Your task to perform on an android device: turn vacation reply on in the gmail app Image 0: 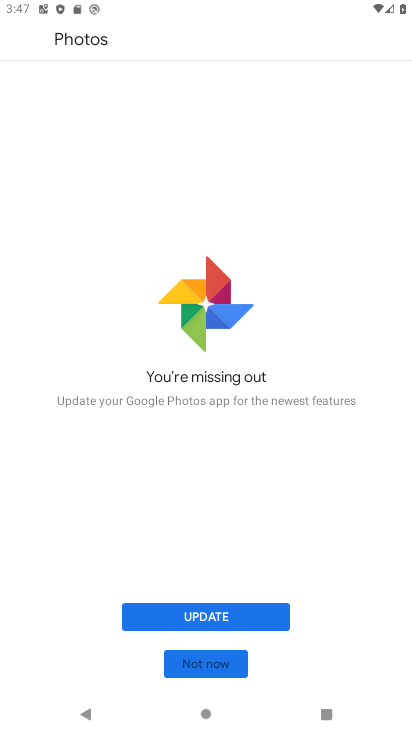
Step 0: press home button
Your task to perform on an android device: turn vacation reply on in the gmail app Image 1: 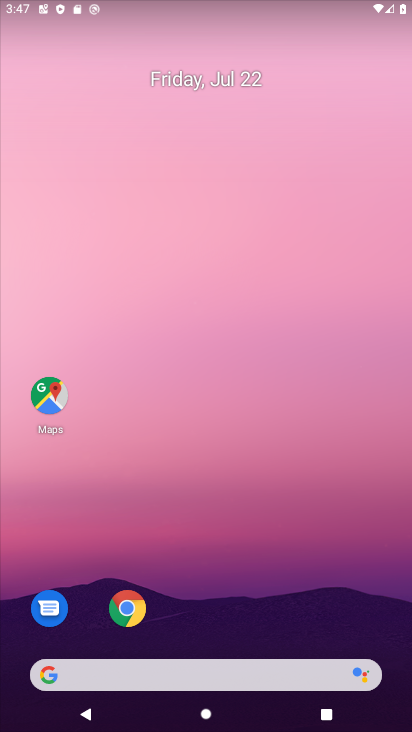
Step 1: drag from (236, 706) to (223, 165)
Your task to perform on an android device: turn vacation reply on in the gmail app Image 2: 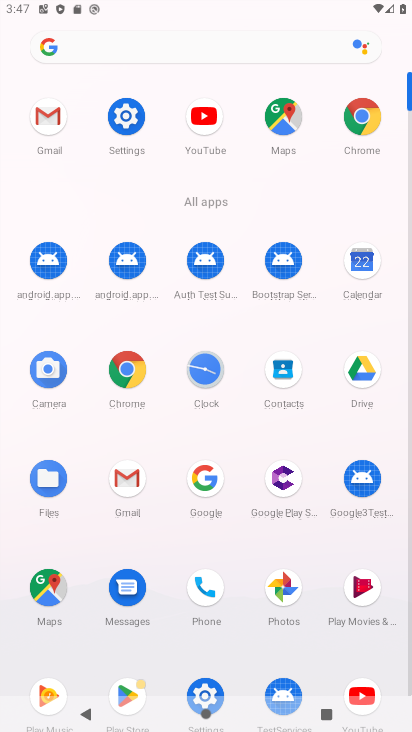
Step 2: click (128, 481)
Your task to perform on an android device: turn vacation reply on in the gmail app Image 3: 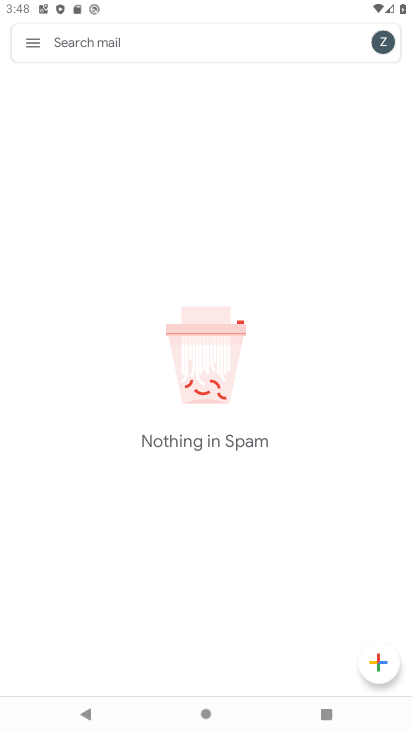
Step 3: click (30, 39)
Your task to perform on an android device: turn vacation reply on in the gmail app Image 4: 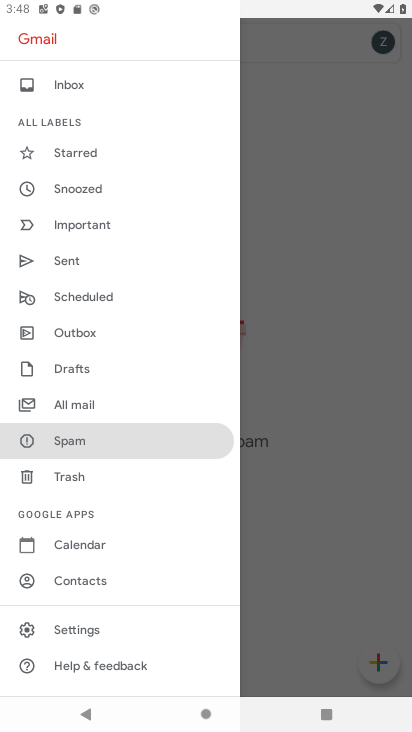
Step 4: click (82, 629)
Your task to perform on an android device: turn vacation reply on in the gmail app Image 5: 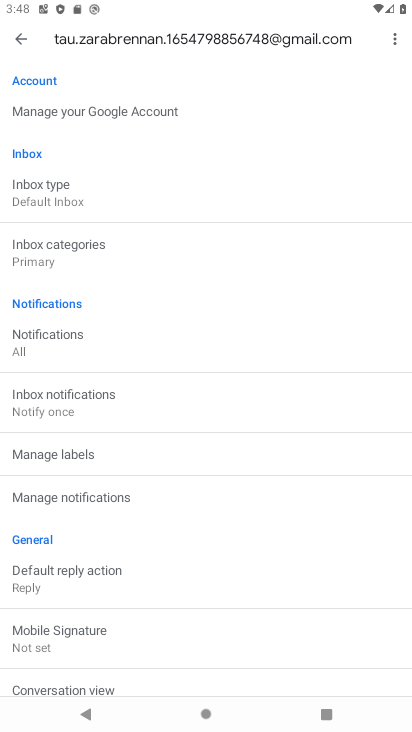
Step 5: drag from (104, 648) to (114, 429)
Your task to perform on an android device: turn vacation reply on in the gmail app Image 6: 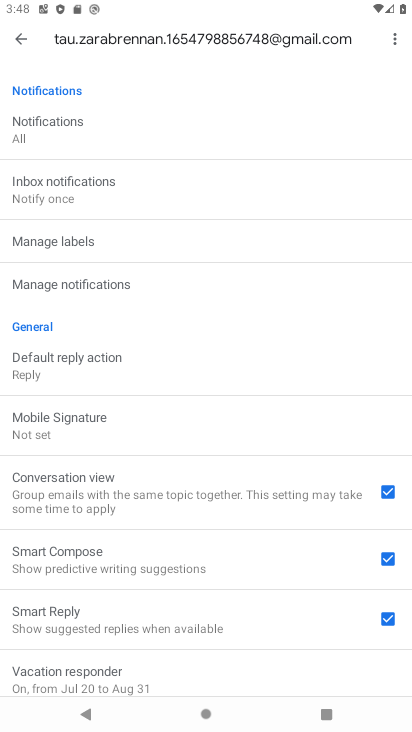
Step 6: click (192, 675)
Your task to perform on an android device: turn vacation reply on in the gmail app Image 7: 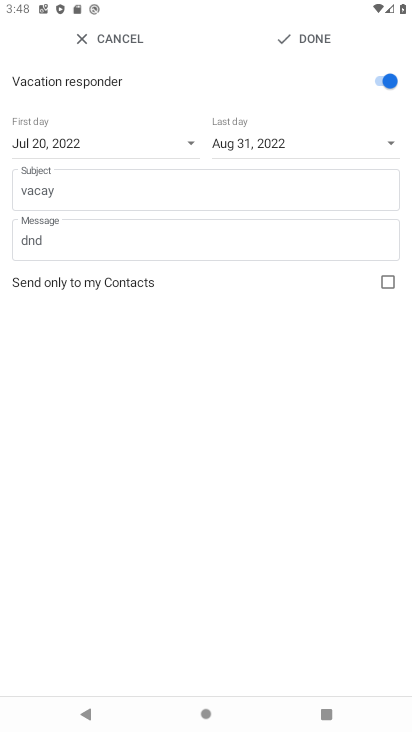
Step 7: click (381, 78)
Your task to perform on an android device: turn vacation reply on in the gmail app Image 8: 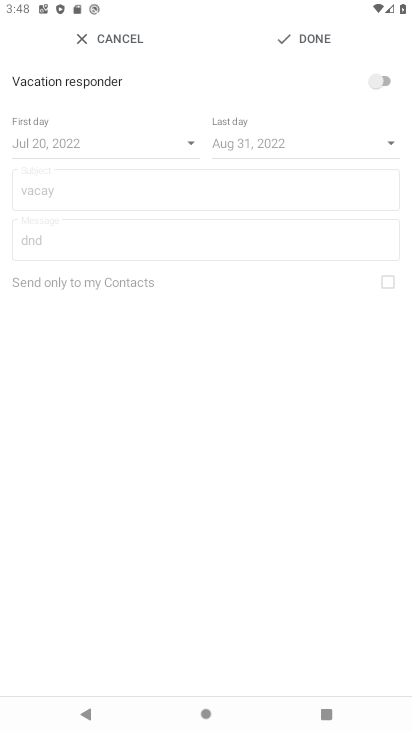
Step 8: task complete